Your task to perform on an android device: turn off improve location accuracy Image 0: 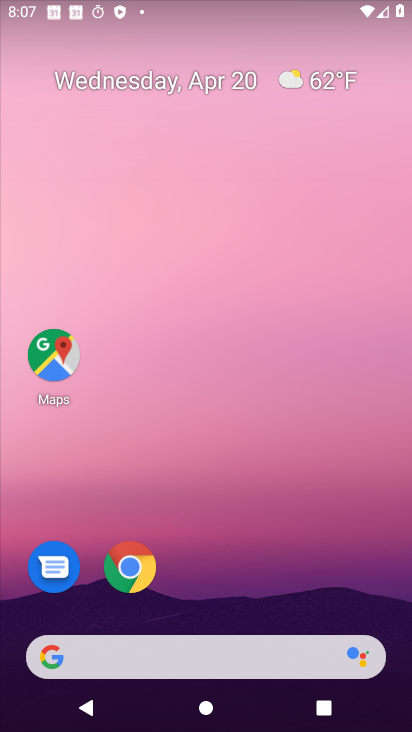
Step 0: drag from (369, 554) to (376, 41)
Your task to perform on an android device: turn off improve location accuracy Image 1: 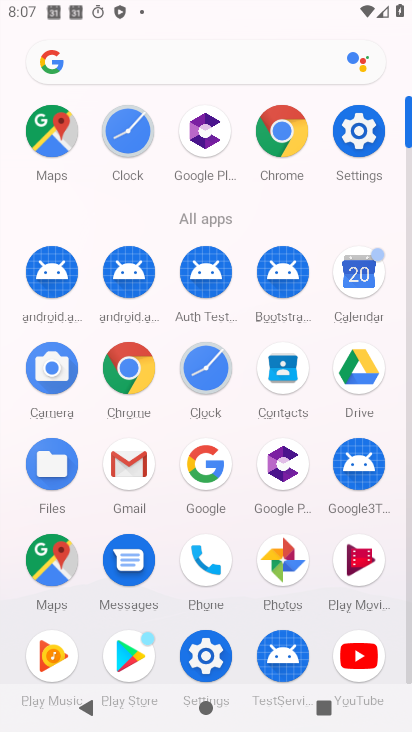
Step 1: click (358, 137)
Your task to perform on an android device: turn off improve location accuracy Image 2: 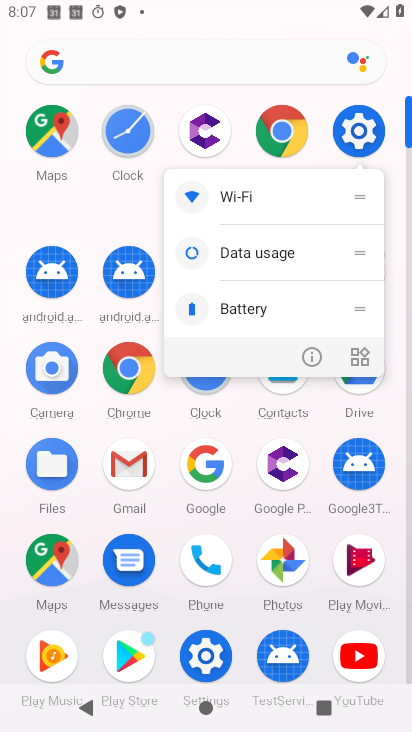
Step 2: click (360, 133)
Your task to perform on an android device: turn off improve location accuracy Image 3: 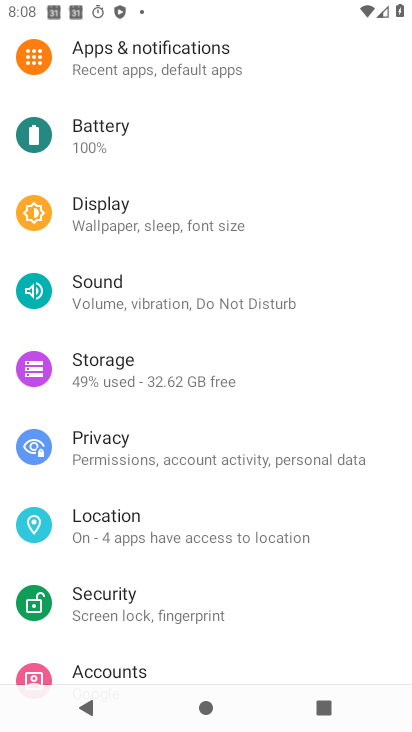
Step 3: click (119, 544)
Your task to perform on an android device: turn off improve location accuracy Image 4: 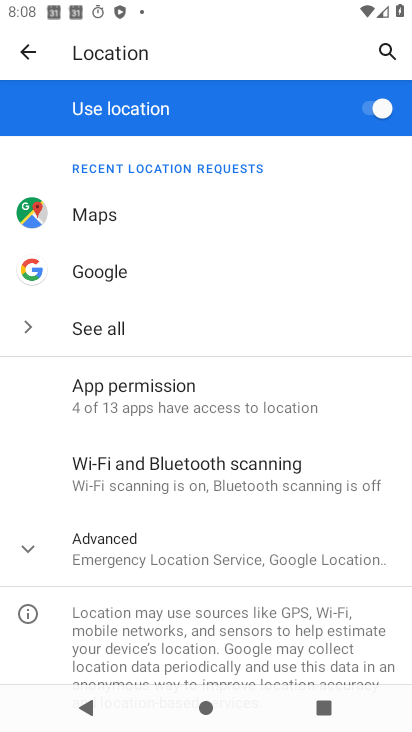
Step 4: click (26, 547)
Your task to perform on an android device: turn off improve location accuracy Image 5: 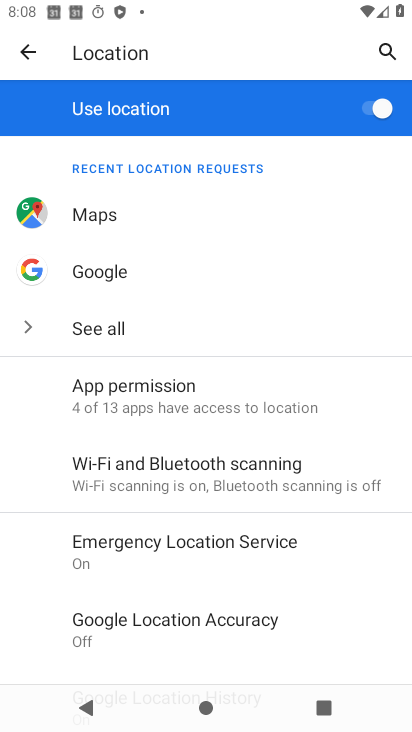
Step 5: click (111, 618)
Your task to perform on an android device: turn off improve location accuracy Image 6: 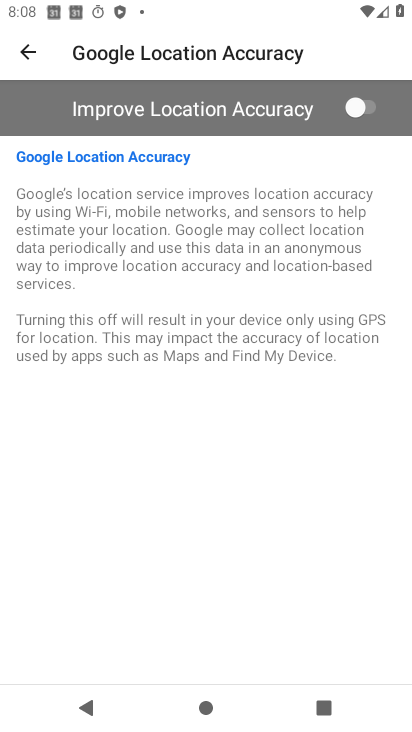
Step 6: task complete